Your task to perform on an android device: change notification settings in the gmail app Image 0: 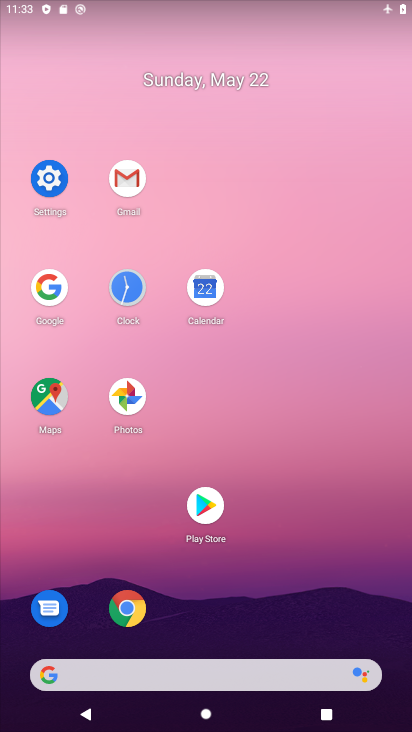
Step 0: click (137, 175)
Your task to perform on an android device: change notification settings in the gmail app Image 1: 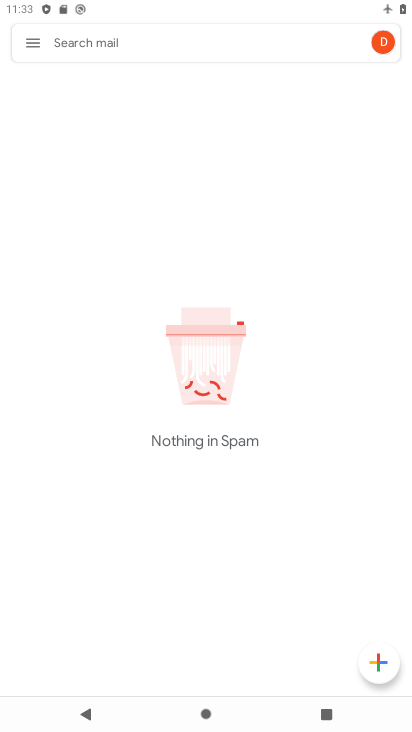
Step 1: click (39, 54)
Your task to perform on an android device: change notification settings in the gmail app Image 2: 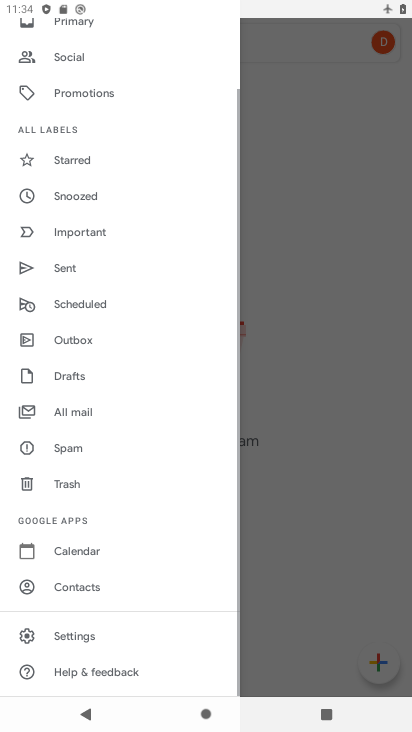
Step 2: click (134, 625)
Your task to perform on an android device: change notification settings in the gmail app Image 3: 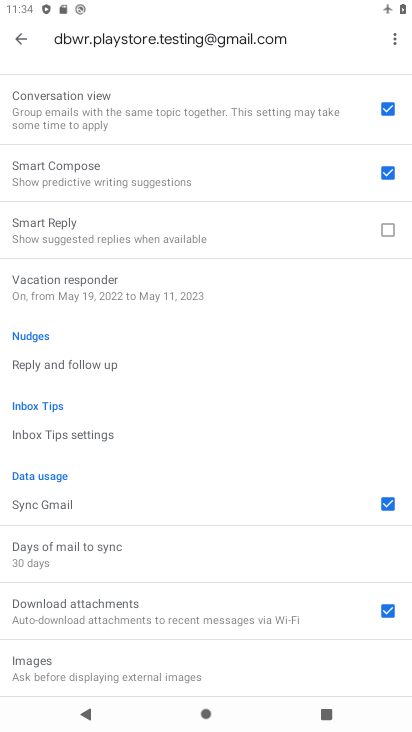
Step 3: drag from (154, 476) to (169, 194)
Your task to perform on an android device: change notification settings in the gmail app Image 4: 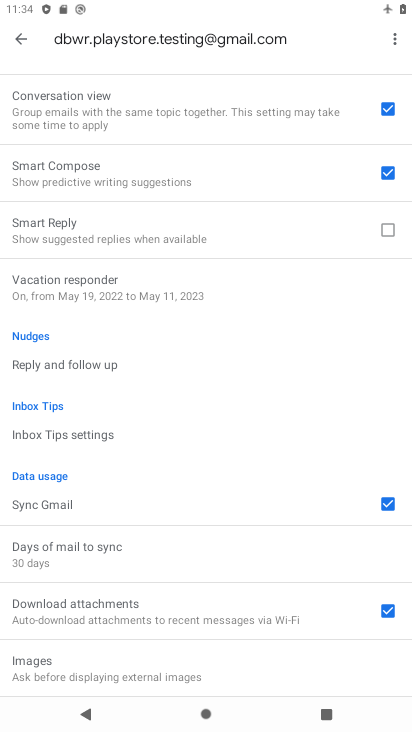
Step 4: drag from (204, 291) to (174, 558)
Your task to perform on an android device: change notification settings in the gmail app Image 5: 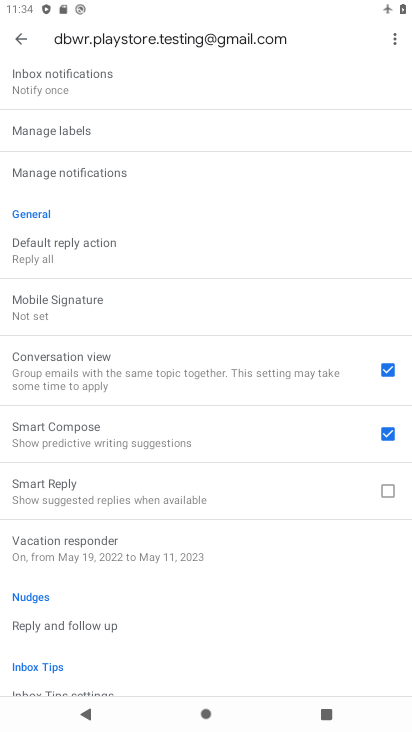
Step 5: drag from (175, 234) to (185, 429)
Your task to perform on an android device: change notification settings in the gmail app Image 6: 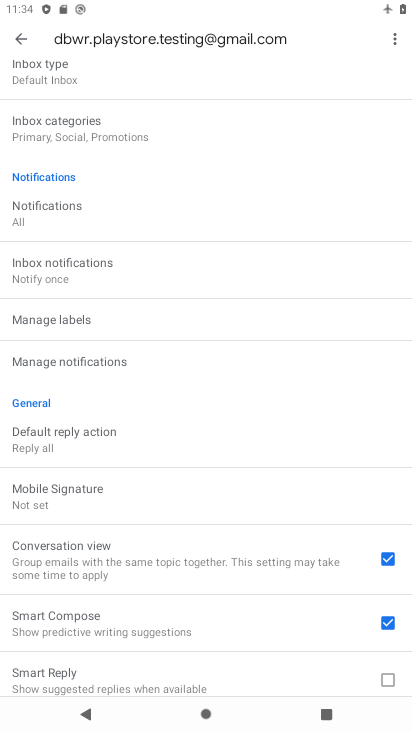
Step 6: click (91, 209)
Your task to perform on an android device: change notification settings in the gmail app Image 7: 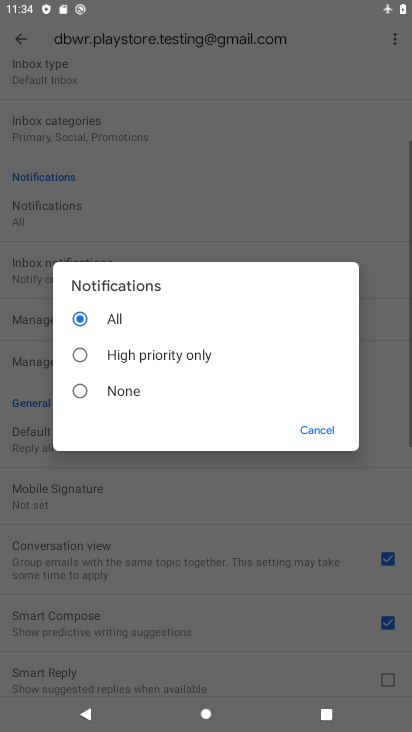
Step 7: click (122, 348)
Your task to perform on an android device: change notification settings in the gmail app Image 8: 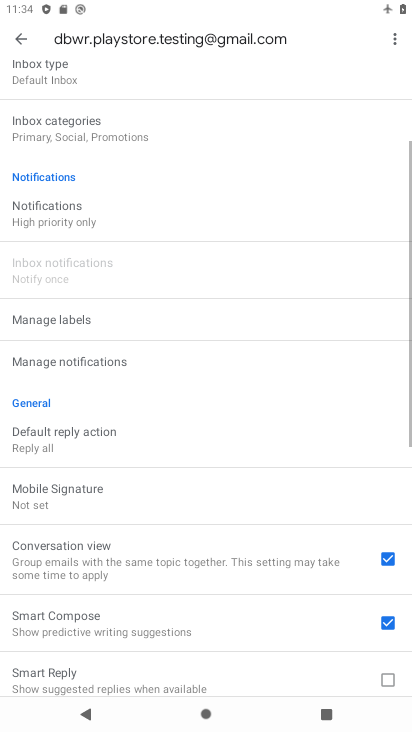
Step 8: task complete